Your task to perform on an android device: turn smart compose on in the gmail app Image 0: 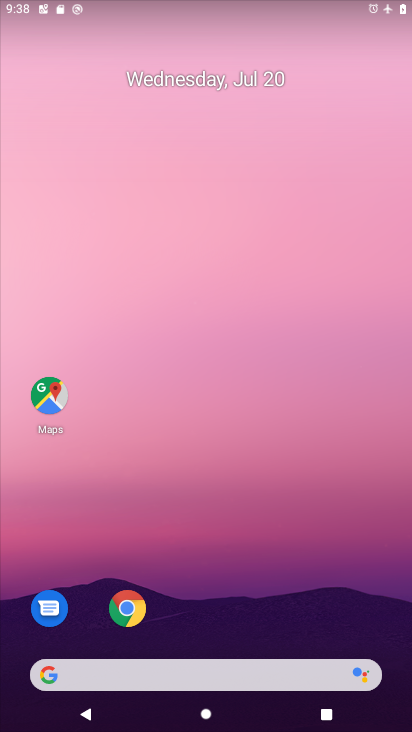
Step 0: drag from (253, 586) to (253, 223)
Your task to perform on an android device: turn smart compose on in the gmail app Image 1: 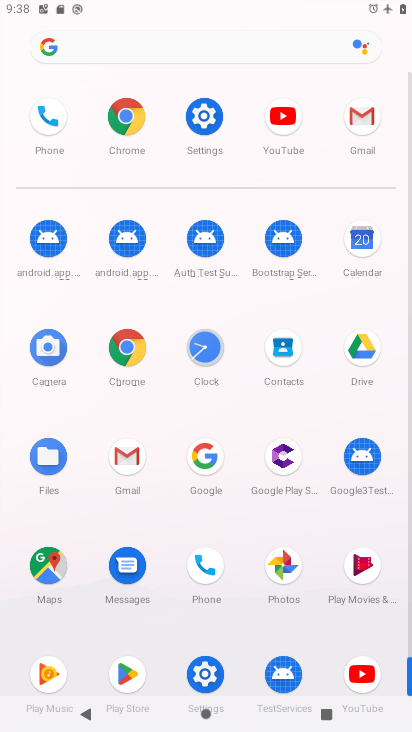
Step 1: click (369, 113)
Your task to perform on an android device: turn smart compose on in the gmail app Image 2: 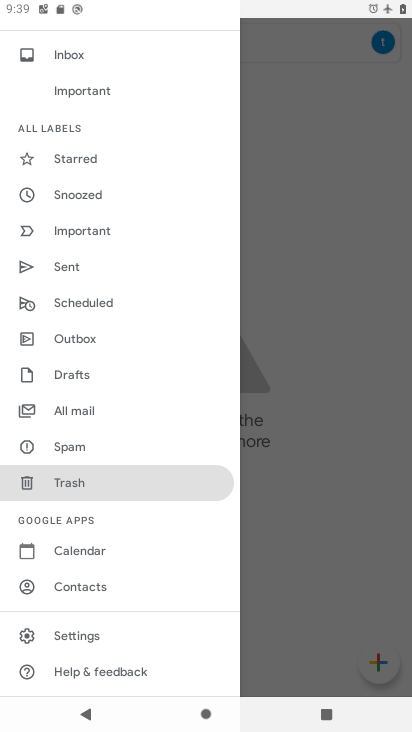
Step 2: click (91, 637)
Your task to perform on an android device: turn smart compose on in the gmail app Image 3: 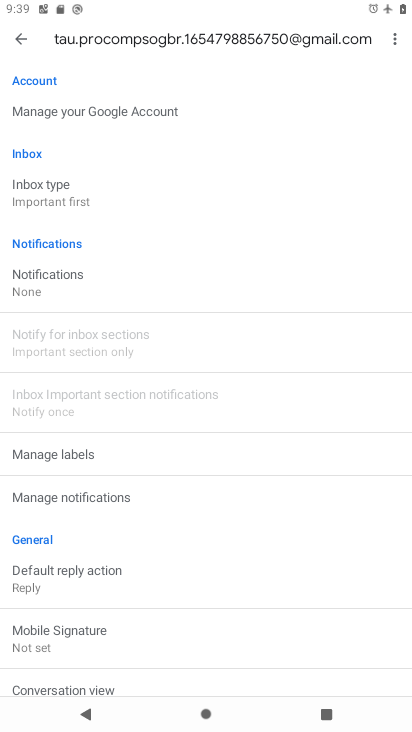
Step 3: task complete